Your task to perform on an android device: turn smart compose on in the gmail app Image 0: 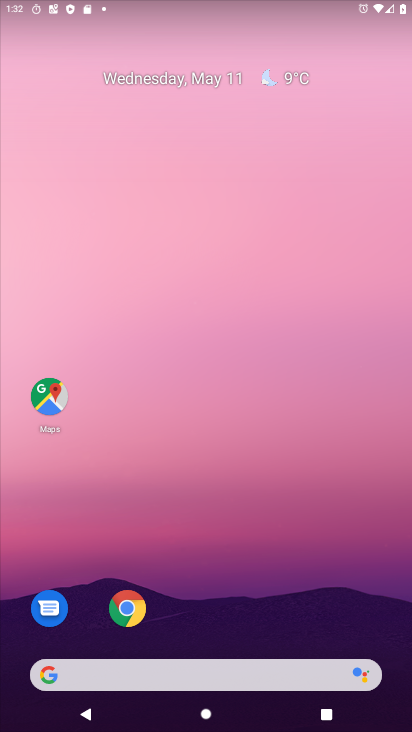
Step 0: drag from (212, 604) to (227, 10)
Your task to perform on an android device: turn smart compose on in the gmail app Image 1: 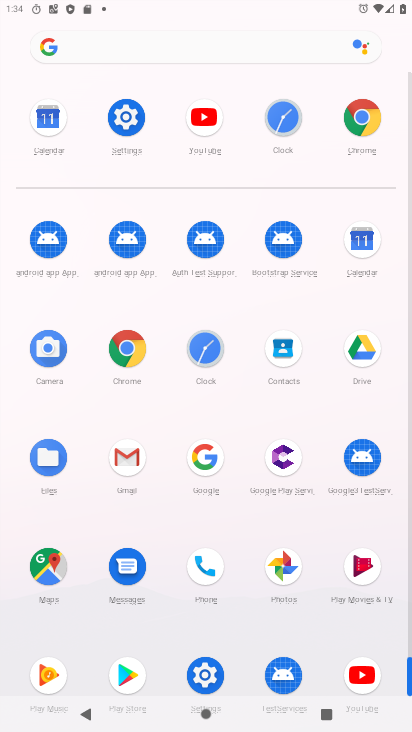
Step 1: click (123, 479)
Your task to perform on an android device: turn smart compose on in the gmail app Image 2: 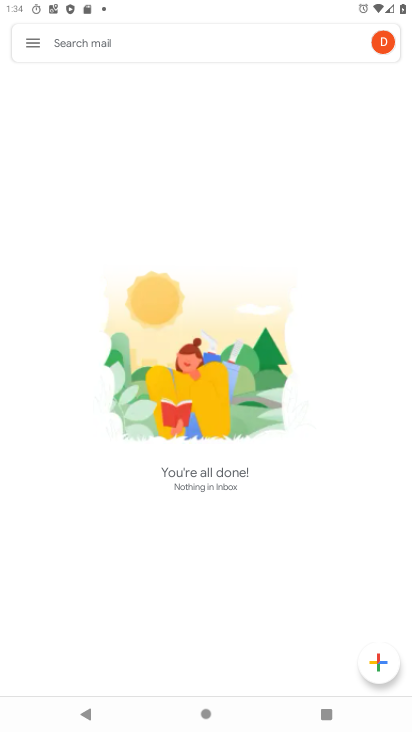
Step 2: click (26, 45)
Your task to perform on an android device: turn smart compose on in the gmail app Image 3: 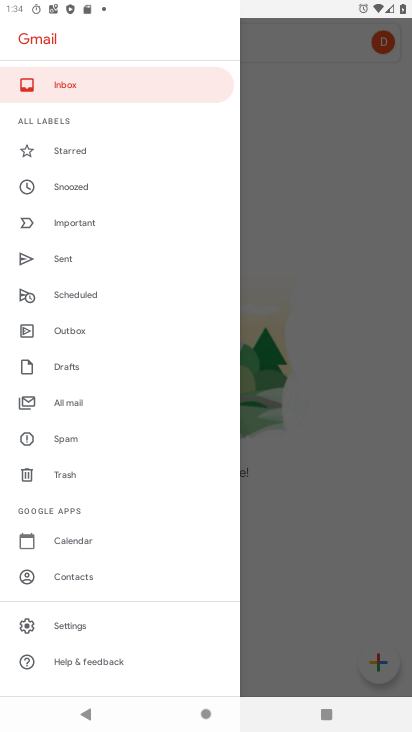
Step 3: drag from (84, 610) to (124, 329)
Your task to perform on an android device: turn smart compose on in the gmail app Image 4: 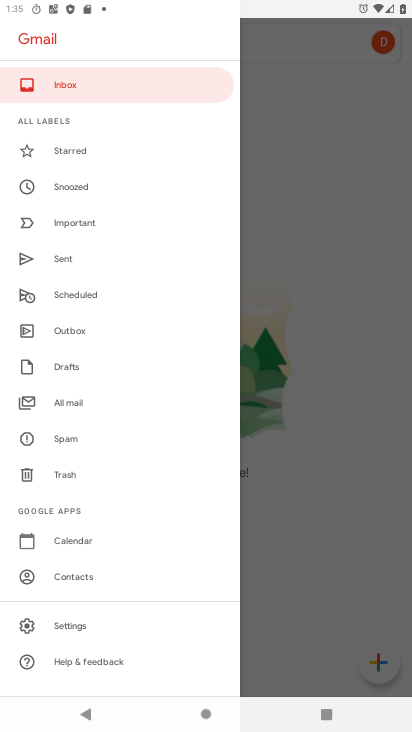
Step 4: click (71, 633)
Your task to perform on an android device: turn smart compose on in the gmail app Image 5: 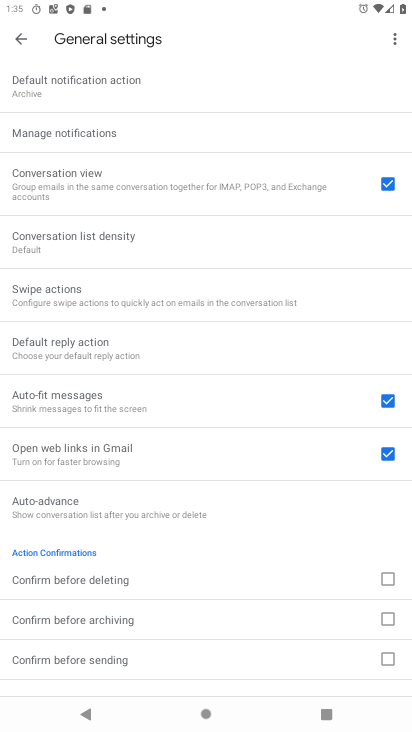
Step 5: drag from (202, 479) to (213, 280)
Your task to perform on an android device: turn smart compose on in the gmail app Image 6: 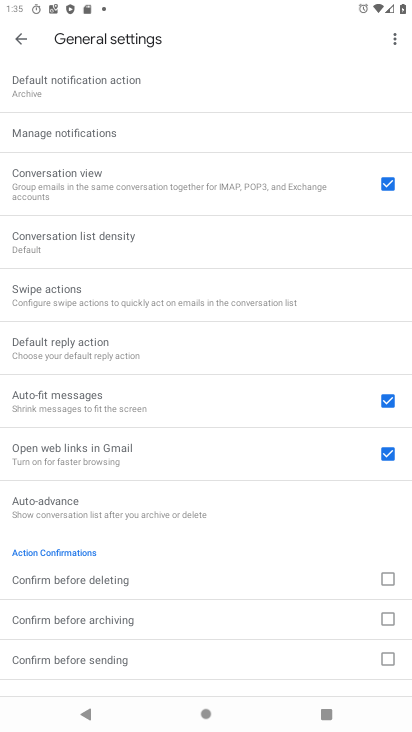
Step 6: click (25, 49)
Your task to perform on an android device: turn smart compose on in the gmail app Image 7: 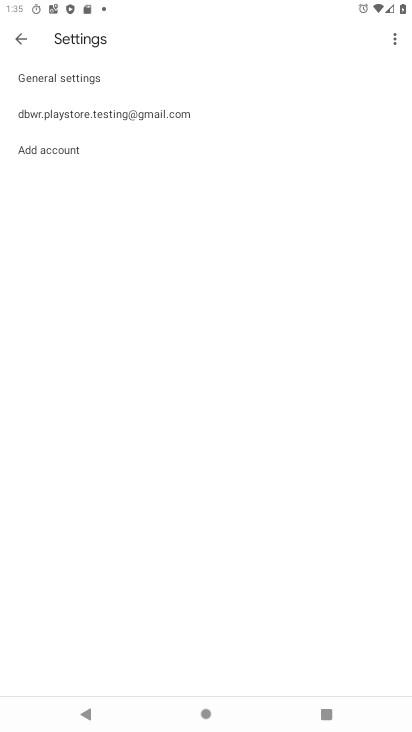
Step 7: click (119, 110)
Your task to perform on an android device: turn smart compose on in the gmail app Image 8: 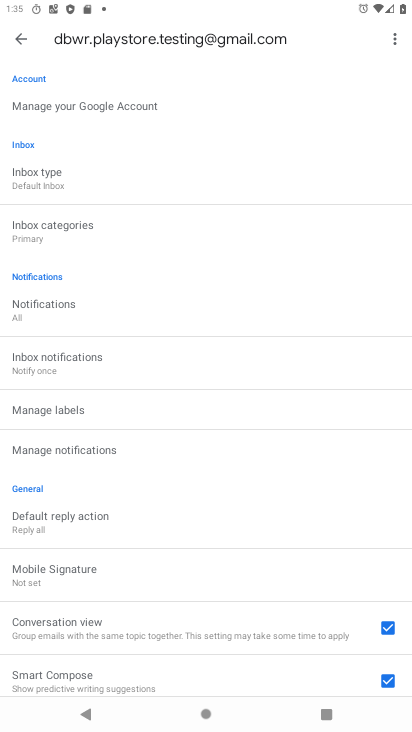
Step 8: task complete